Your task to perform on an android device: Open the Play Movies app and select the watchlist tab. Image 0: 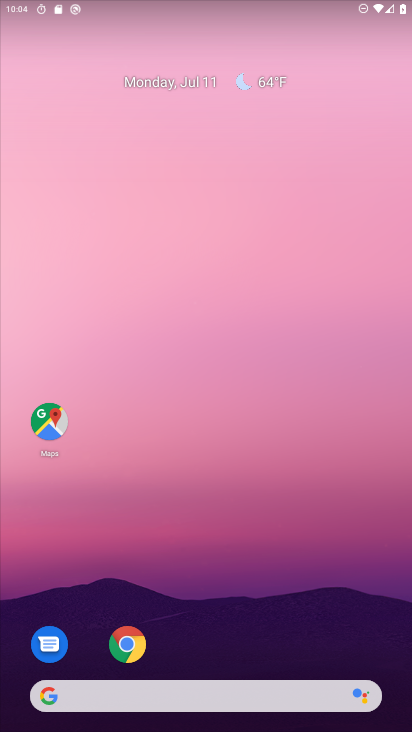
Step 0: drag from (259, 596) to (254, 87)
Your task to perform on an android device: Open the Play Movies app and select the watchlist tab. Image 1: 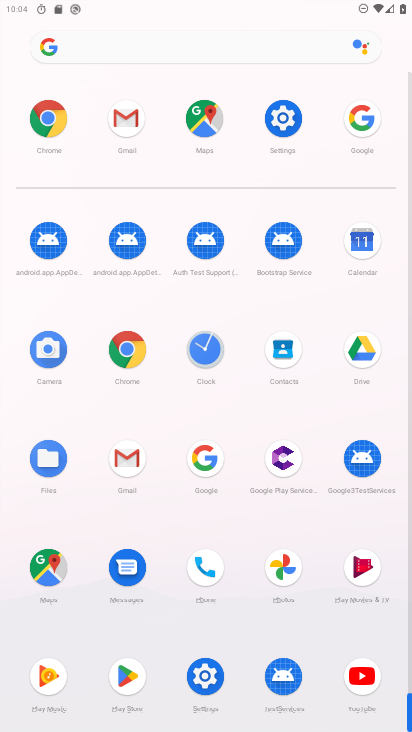
Step 1: click (368, 569)
Your task to perform on an android device: Open the Play Movies app and select the watchlist tab. Image 2: 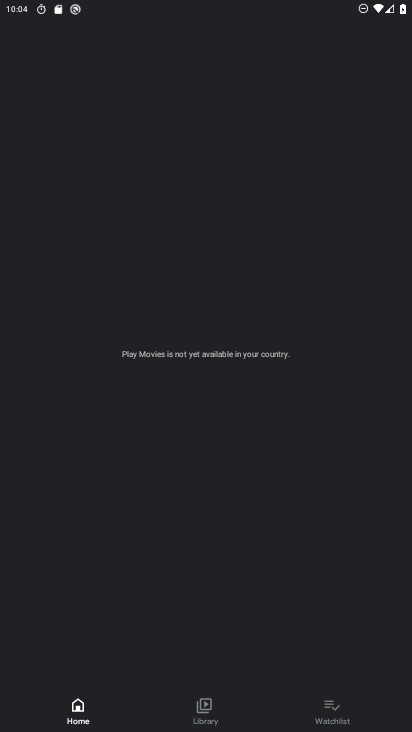
Step 2: click (341, 721)
Your task to perform on an android device: Open the Play Movies app and select the watchlist tab. Image 3: 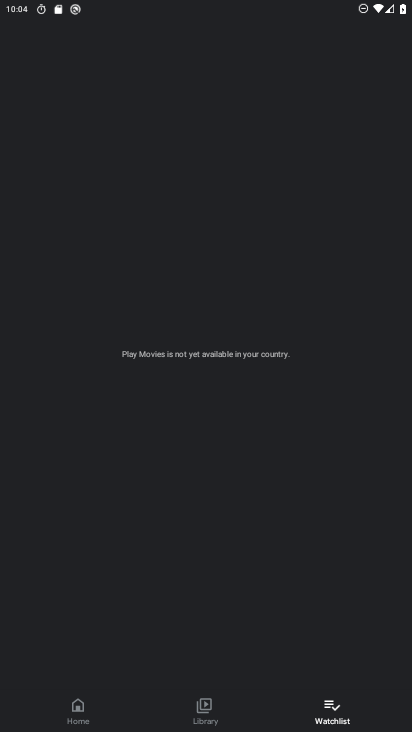
Step 3: task complete